Your task to perform on an android device: check android version Image 0: 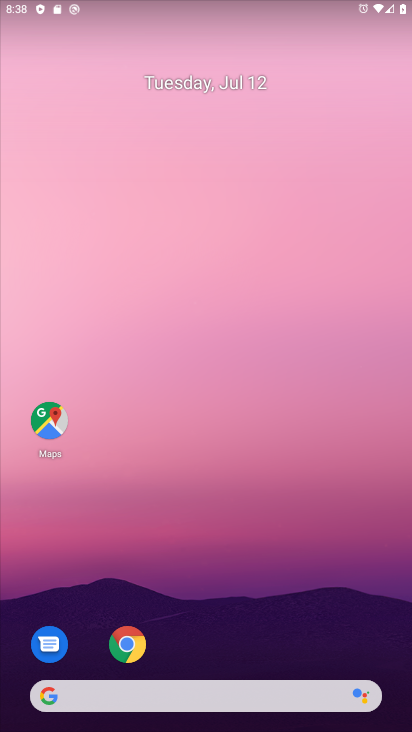
Step 0: drag from (22, 691) to (257, 15)
Your task to perform on an android device: check android version Image 1: 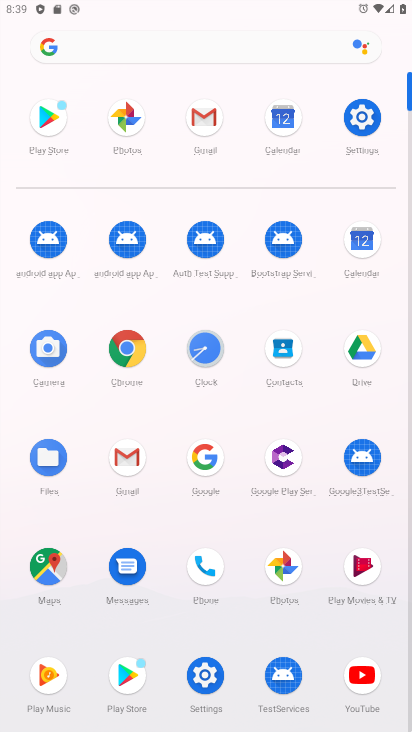
Step 1: click (205, 681)
Your task to perform on an android device: check android version Image 2: 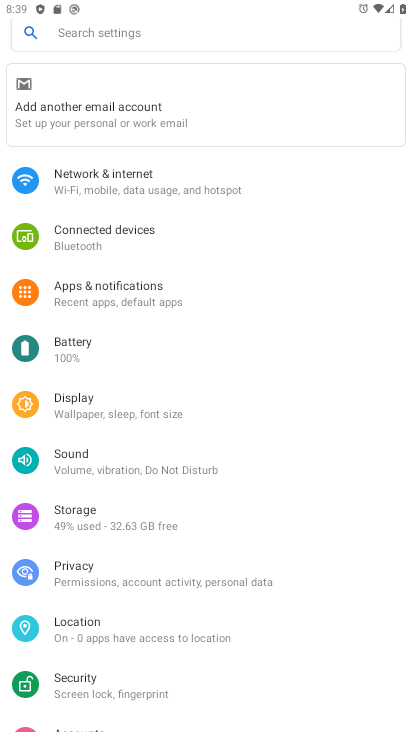
Step 2: drag from (175, 710) to (320, 9)
Your task to perform on an android device: check android version Image 3: 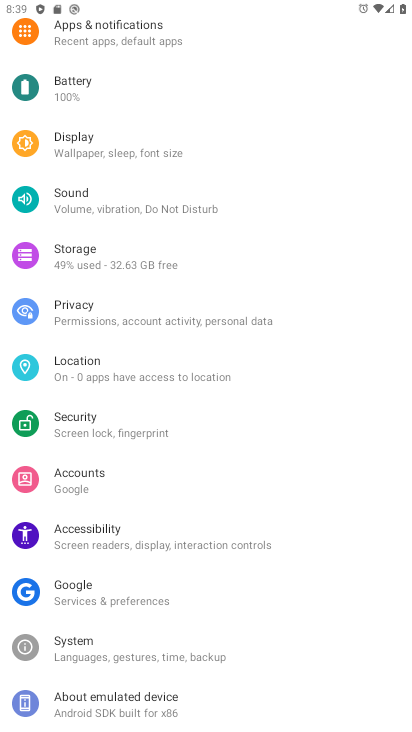
Step 3: click (143, 700)
Your task to perform on an android device: check android version Image 4: 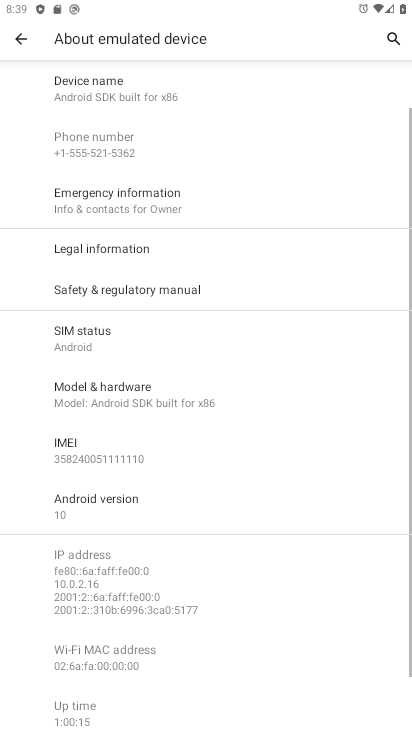
Step 4: click (120, 490)
Your task to perform on an android device: check android version Image 5: 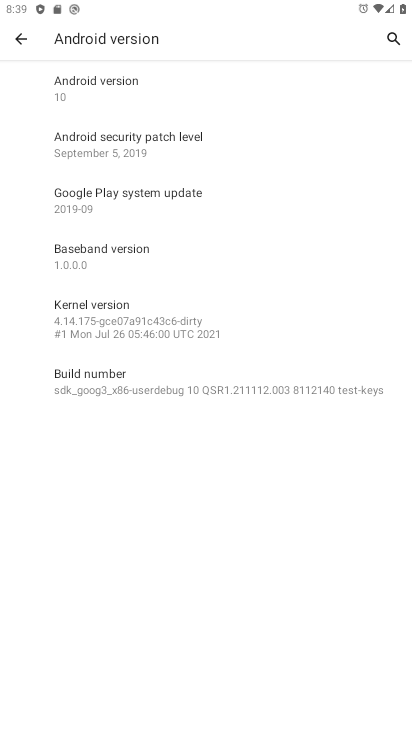
Step 5: task complete